Your task to perform on an android device: turn on wifi Image 0: 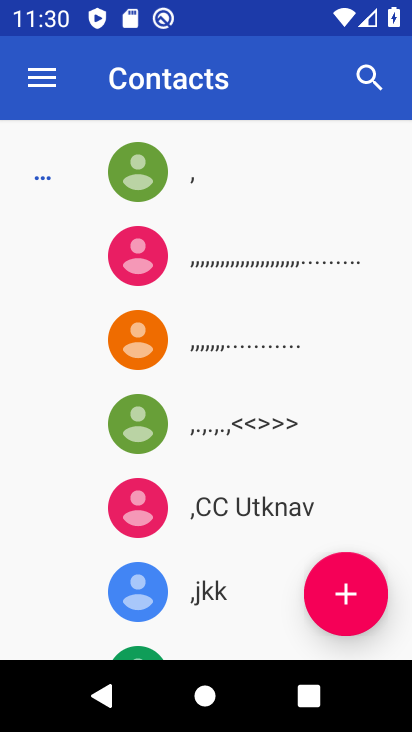
Step 0: press home button
Your task to perform on an android device: turn on wifi Image 1: 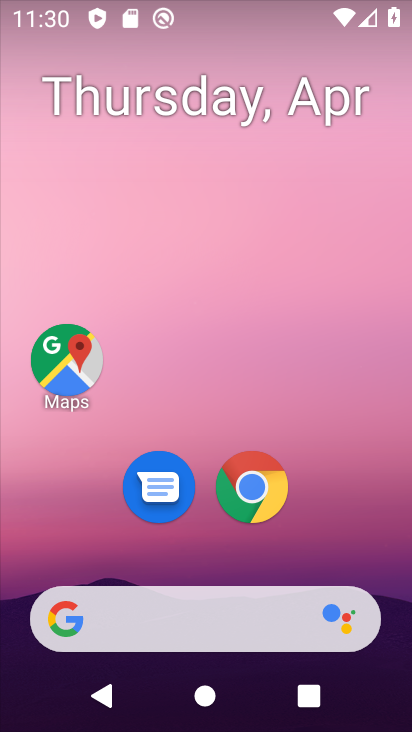
Step 1: drag from (312, 323) to (319, 231)
Your task to perform on an android device: turn on wifi Image 2: 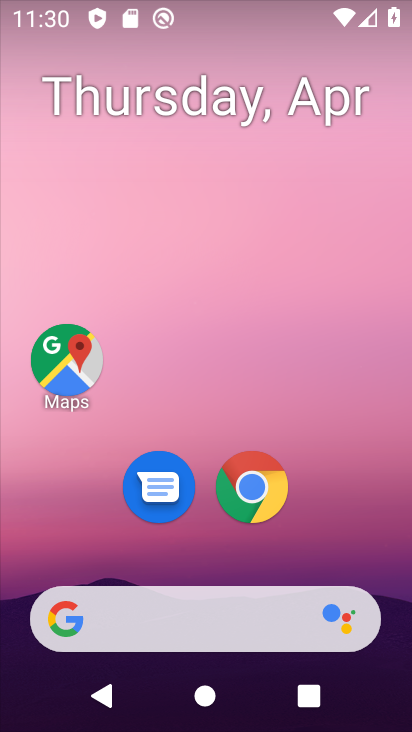
Step 2: drag from (329, 502) to (300, 112)
Your task to perform on an android device: turn on wifi Image 3: 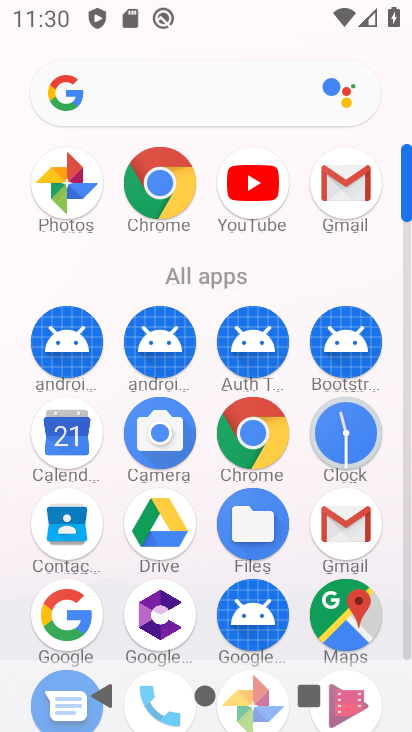
Step 3: drag from (217, 570) to (209, 278)
Your task to perform on an android device: turn on wifi Image 4: 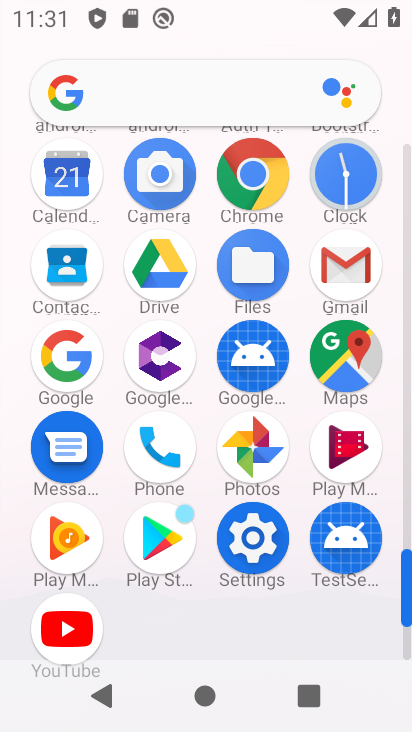
Step 4: click (253, 551)
Your task to perform on an android device: turn on wifi Image 5: 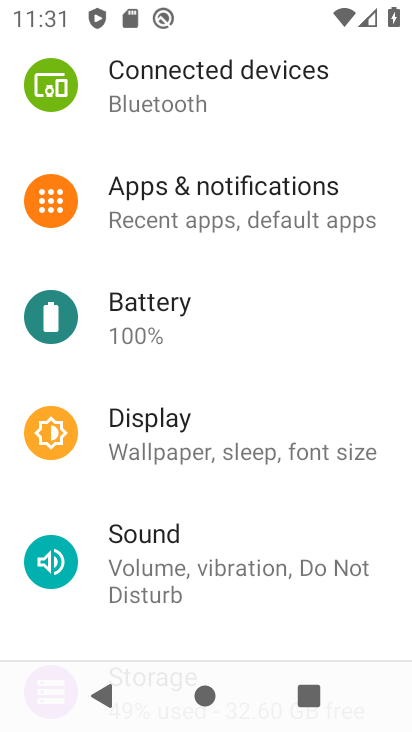
Step 5: drag from (238, 141) to (262, 583)
Your task to perform on an android device: turn on wifi Image 6: 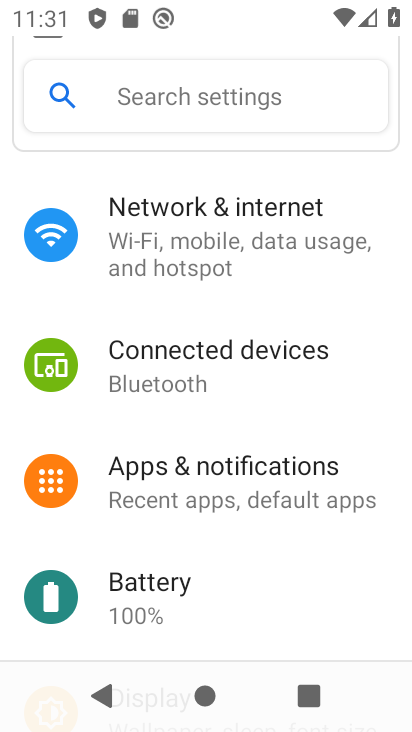
Step 6: click (209, 252)
Your task to perform on an android device: turn on wifi Image 7: 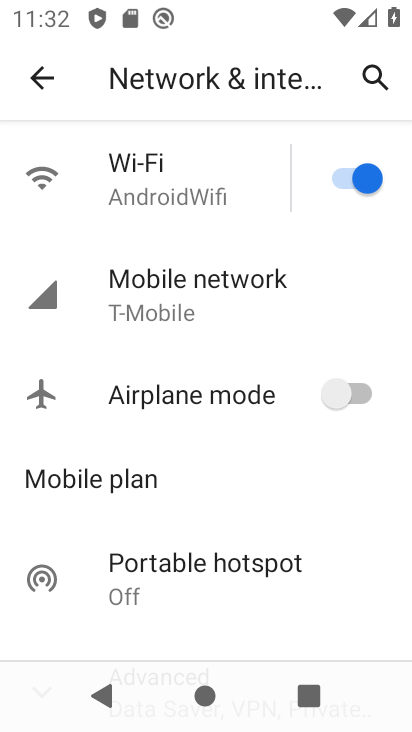
Step 7: task complete